Your task to perform on an android device: Do I have any events today? Image 0: 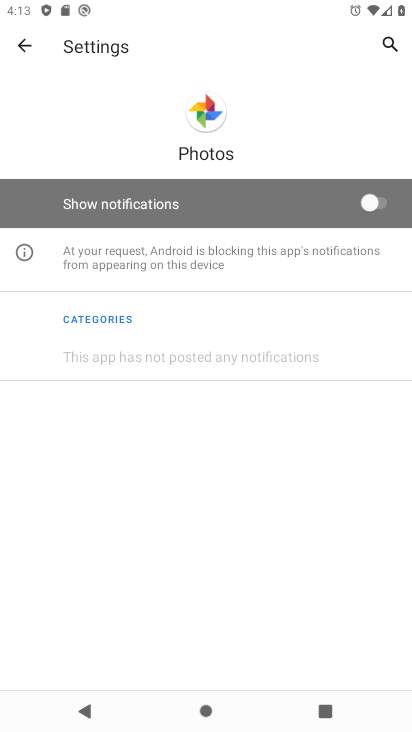
Step 0: press home button
Your task to perform on an android device: Do I have any events today? Image 1: 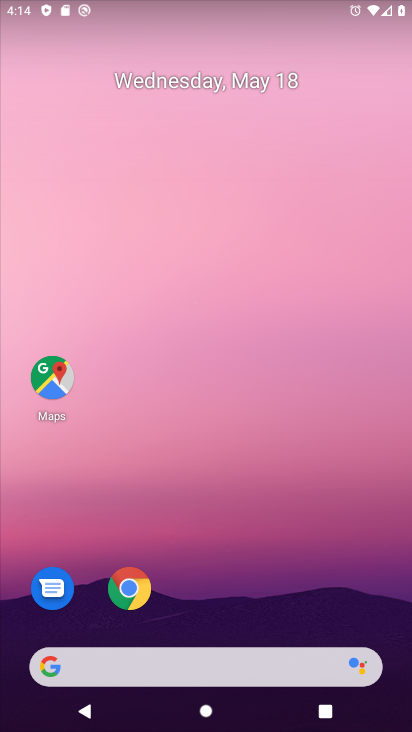
Step 1: drag from (246, 601) to (276, 106)
Your task to perform on an android device: Do I have any events today? Image 2: 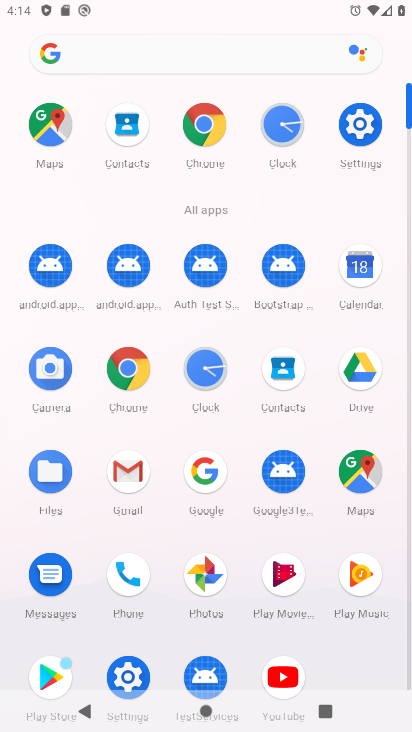
Step 2: click (365, 276)
Your task to perform on an android device: Do I have any events today? Image 3: 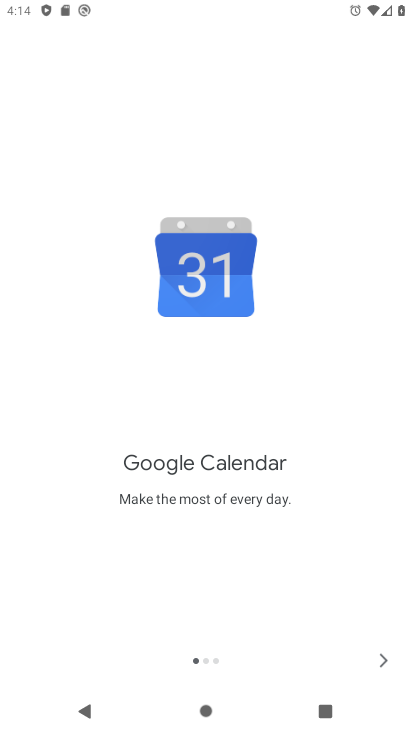
Step 3: click (392, 657)
Your task to perform on an android device: Do I have any events today? Image 4: 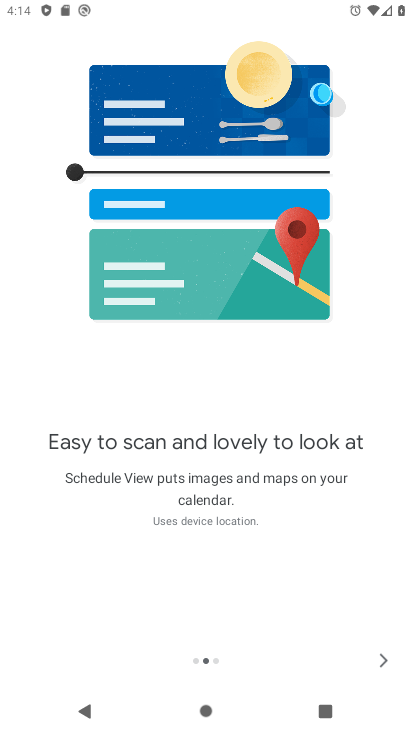
Step 4: click (385, 654)
Your task to perform on an android device: Do I have any events today? Image 5: 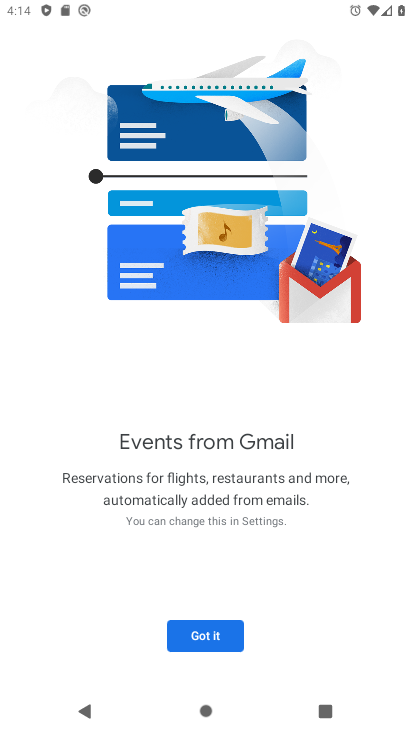
Step 5: click (193, 635)
Your task to perform on an android device: Do I have any events today? Image 6: 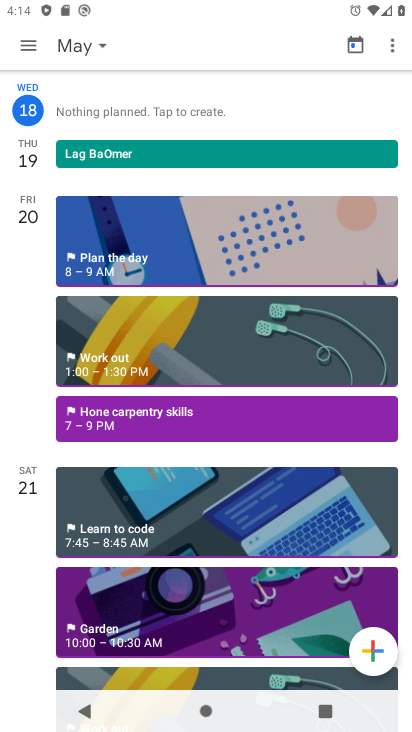
Step 6: click (36, 106)
Your task to perform on an android device: Do I have any events today? Image 7: 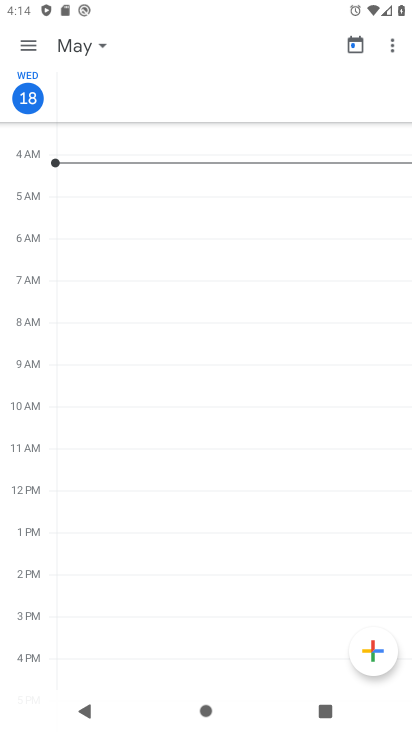
Step 7: task complete